Your task to perform on an android device: turn off location Image 0: 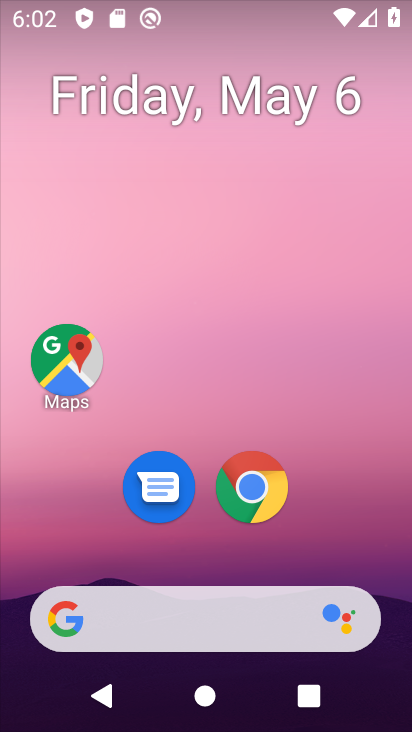
Step 0: drag from (347, 541) to (360, 51)
Your task to perform on an android device: turn off location Image 1: 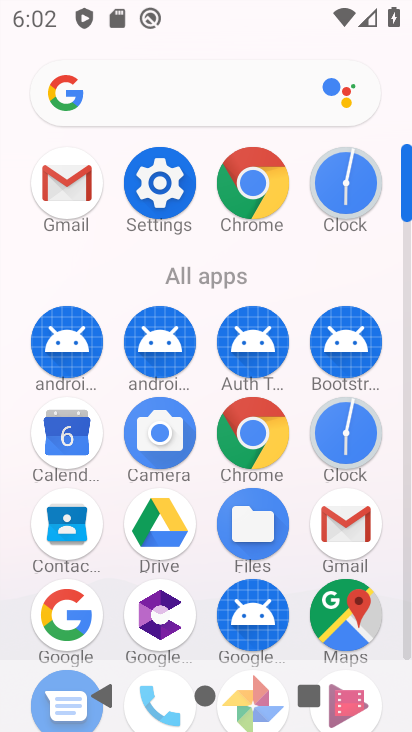
Step 1: click (148, 180)
Your task to perform on an android device: turn off location Image 2: 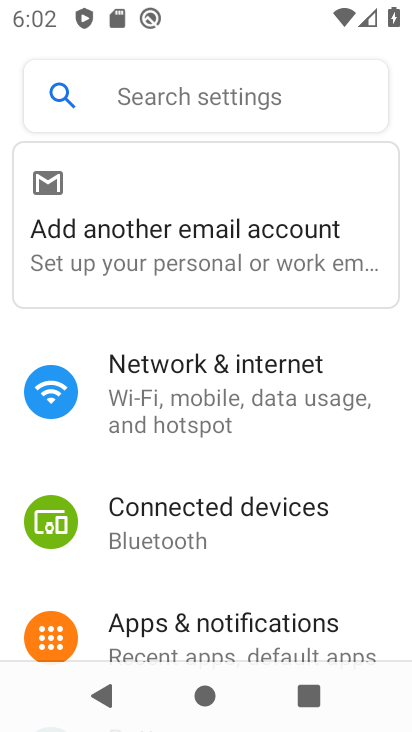
Step 2: drag from (375, 596) to (393, 203)
Your task to perform on an android device: turn off location Image 3: 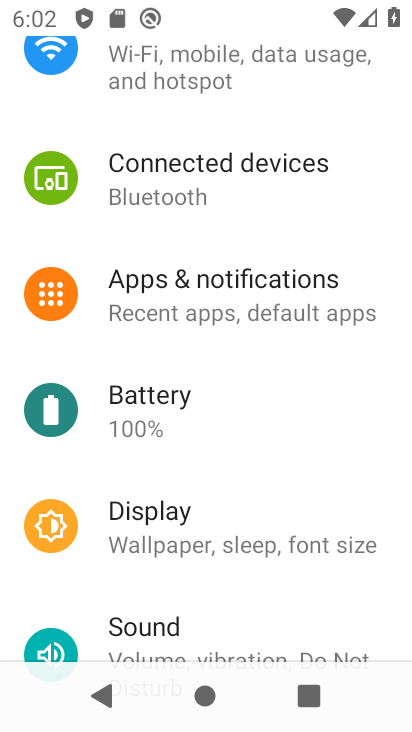
Step 3: drag from (330, 590) to (332, 228)
Your task to perform on an android device: turn off location Image 4: 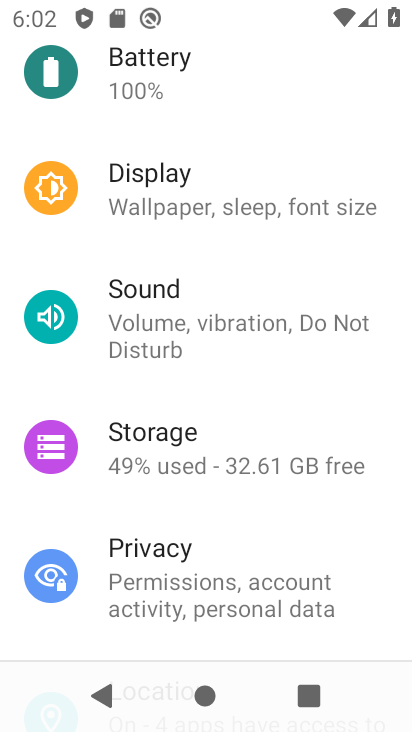
Step 4: drag from (341, 338) to (334, 262)
Your task to perform on an android device: turn off location Image 5: 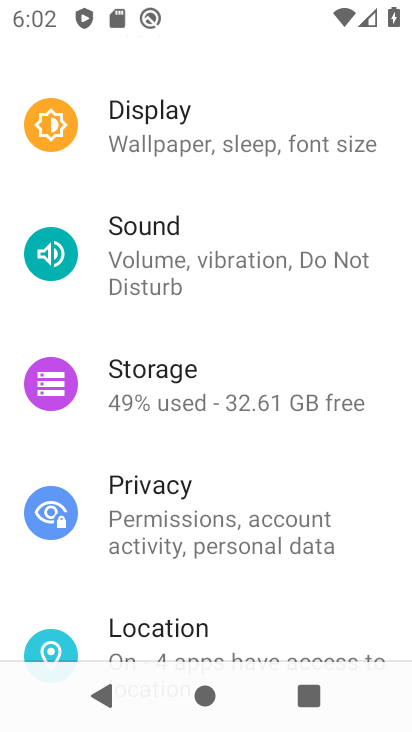
Step 5: click (189, 624)
Your task to perform on an android device: turn off location Image 6: 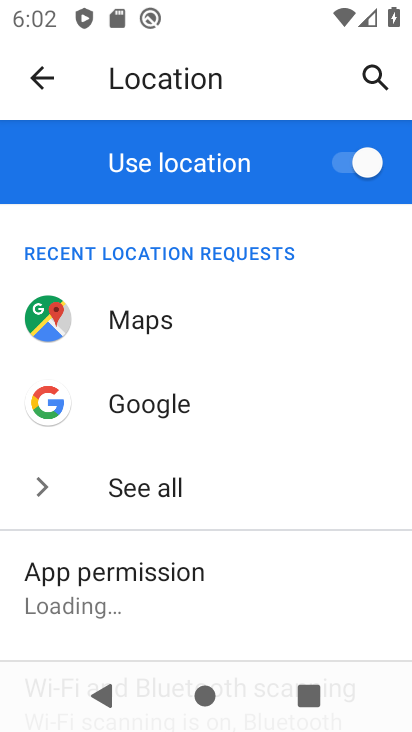
Step 6: click (343, 159)
Your task to perform on an android device: turn off location Image 7: 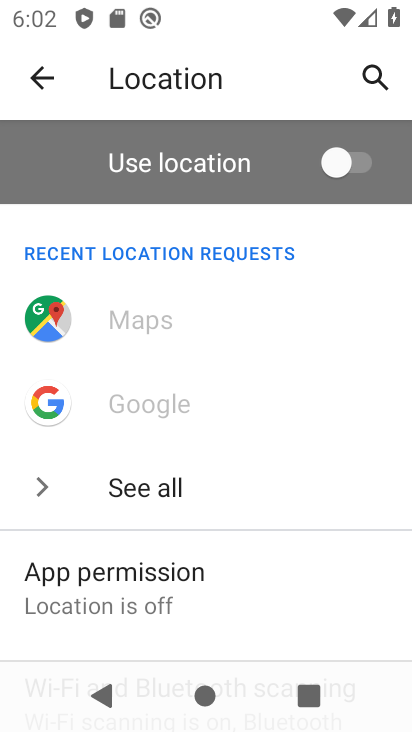
Step 7: task complete